Your task to perform on an android device: delete browsing data in the chrome app Image 0: 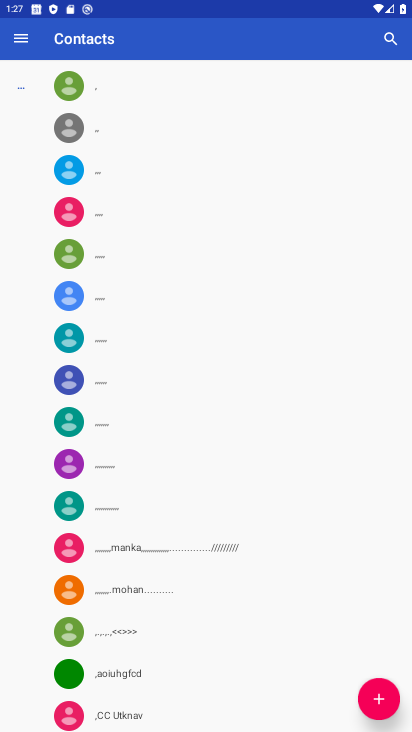
Step 0: press back button
Your task to perform on an android device: delete browsing data in the chrome app Image 1: 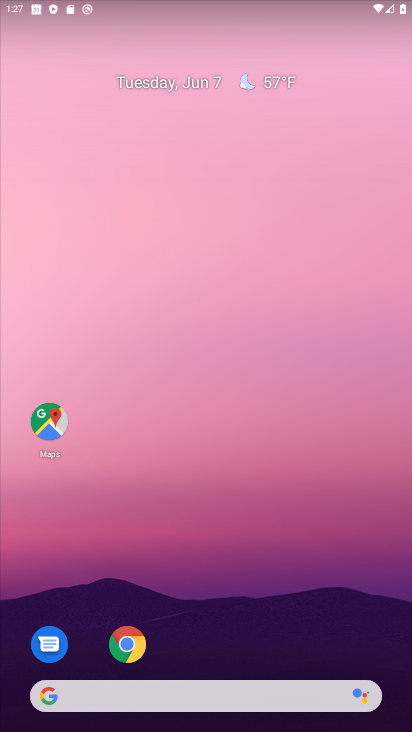
Step 1: drag from (183, 561) to (182, 260)
Your task to perform on an android device: delete browsing data in the chrome app Image 2: 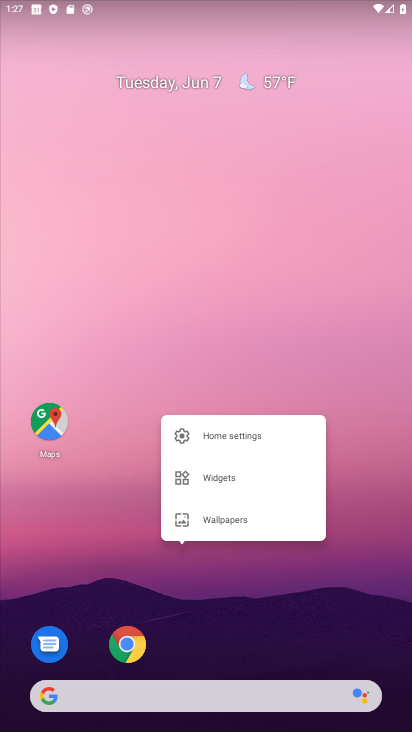
Step 2: drag from (237, 566) to (151, 159)
Your task to perform on an android device: delete browsing data in the chrome app Image 3: 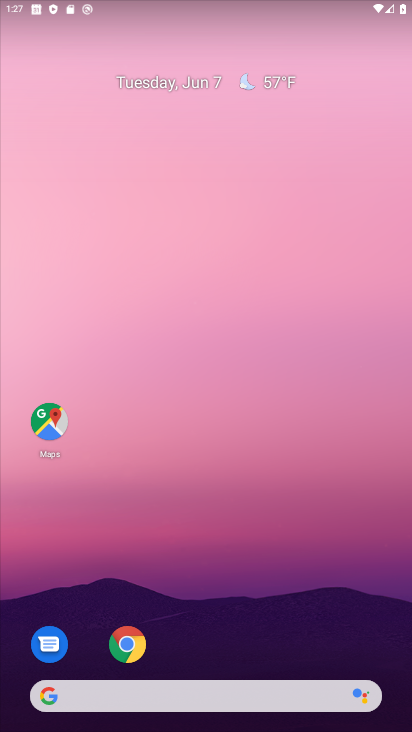
Step 3: drag from (196, 661) to (103, 124)
Your task to perform on an android device: delete browsing data in the chrome app Image 4: 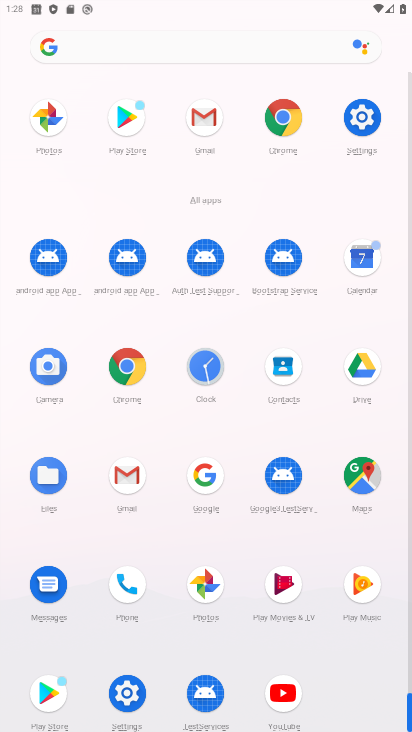
Step 4: click (132, 365)
Your task to perform on an android device: delete browsing data in the chrome app Image 5: 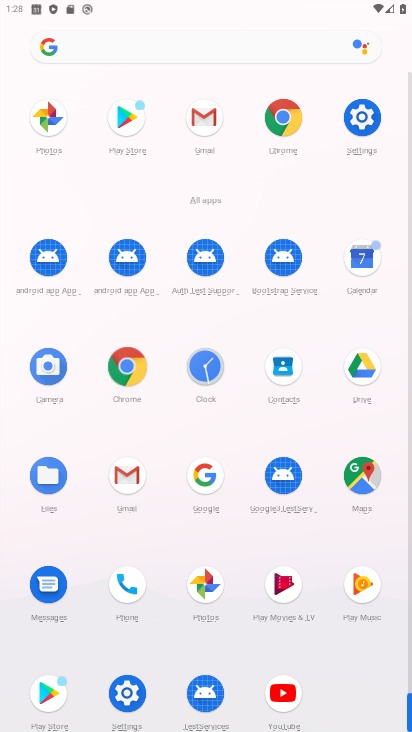
Step 5: click (132, 365)
Your task to perform on an android device: delete browsing data in the chrome app Image 6: 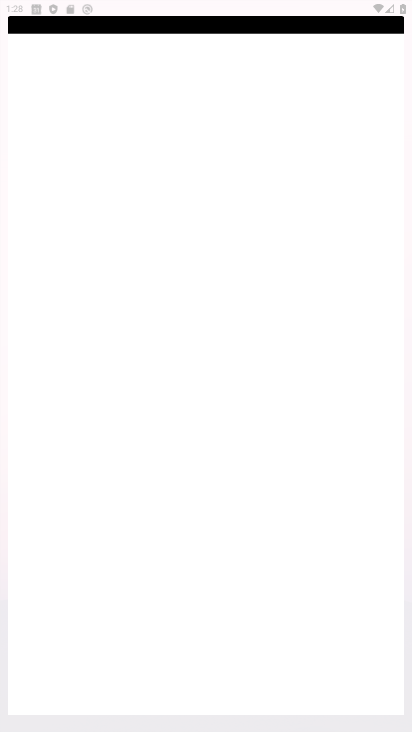
Step 6: click (132, 365)
Your task to perform on an android device: delete browsing data in the chrome app Image 7: 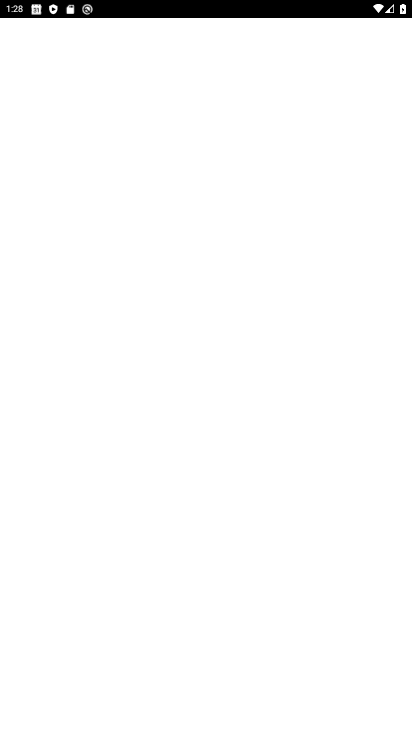
Step 7: click (132, 367)
Your task to perform on an android device: delete browsing data in the chrome app Image 8: 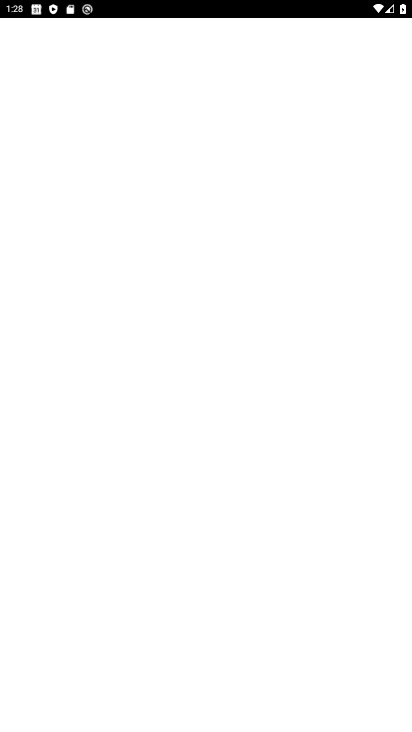
Step 8: click (132, 367)
Your task to perform on an android device: delete browsing data in the chrome app Image 9: 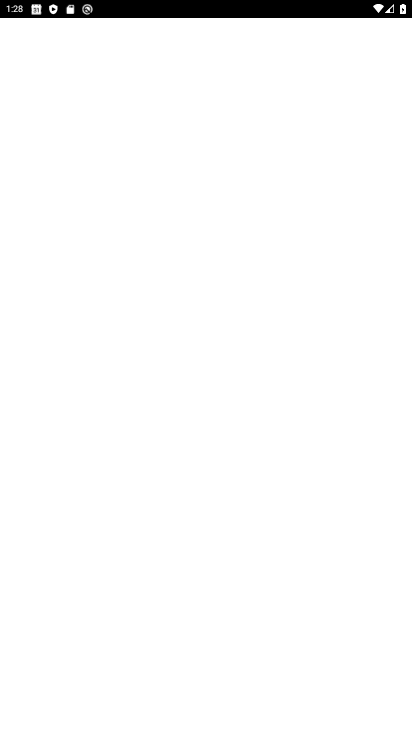
Step 9: click (132, 367)
Your task to perform on an android device: delete browsing data in the chrome app Image 10: 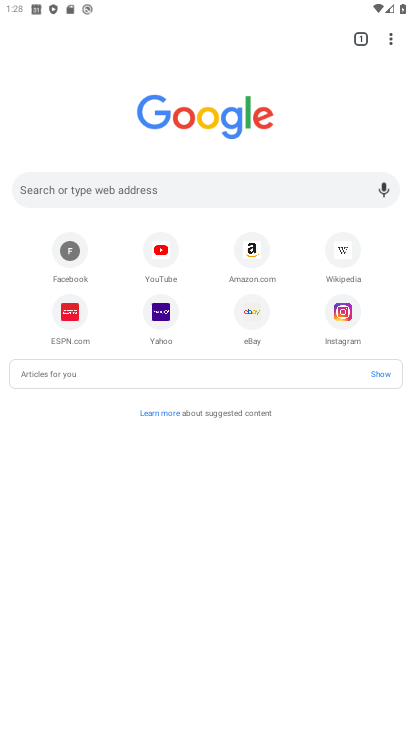
Step 10: drag from (389, 42) to (234, 220)
Your task to perform on an android device: delete browsing data in the chrome app Image 11: 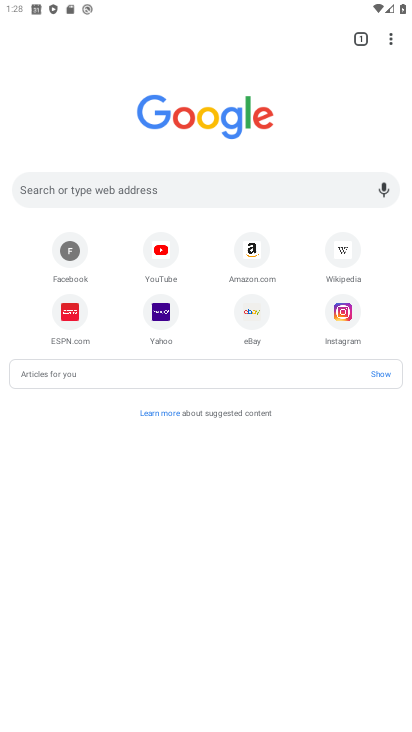
Step 11: click (234, 220)
Your task to perform on an android device: delete browsing data in the chrome app Image 12: 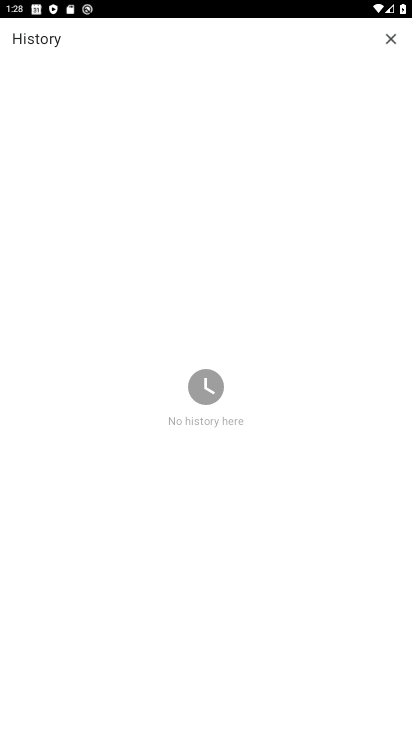
Step 12: task complete